Your task to perform on an android device: turn pop-ups off in chrome Image 0: 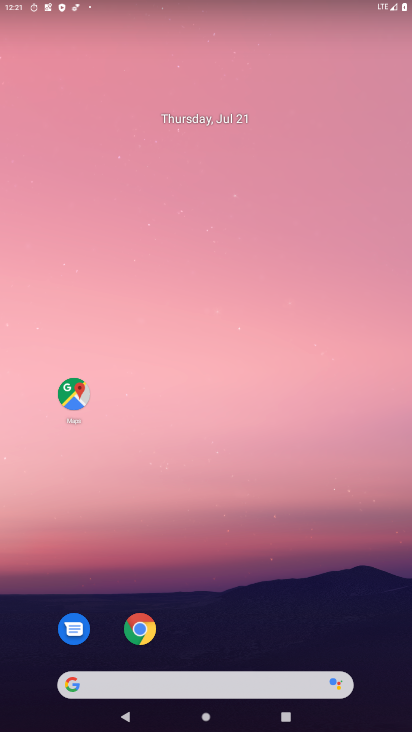
Step 0: drag from (161, 675) to (245, 10)
Your task to perform on an android device: turn pop-ups off in chrome Image 1: 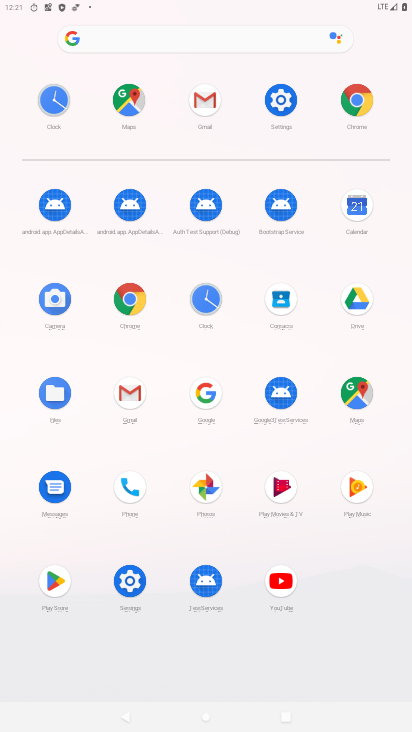
Step 1: click (122, 289)
Your task to perform on an android device: turn pop-ups off in chrome Image 2: 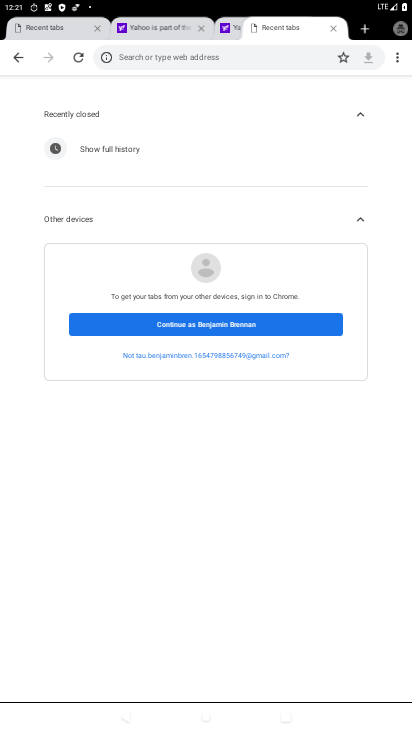
Step 2: drag from (393, 56) to (285, 262)
Your task to perform on an android device: turn pop-ups off in chrome Image 3: 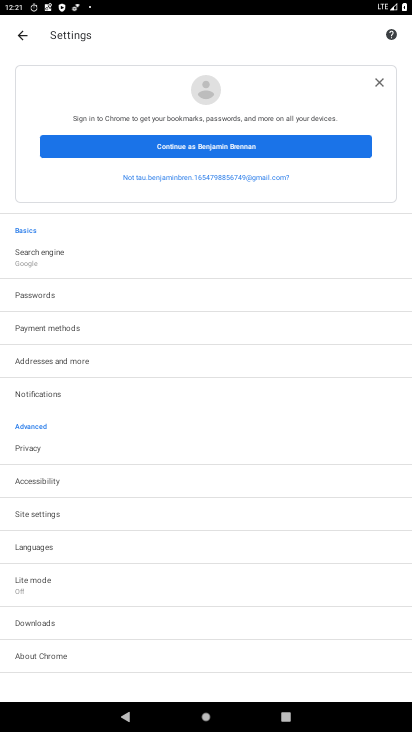
Step 3: click (36, 510)
Your task to perform on an android device: turn pop-ups off in chrome Image 4: 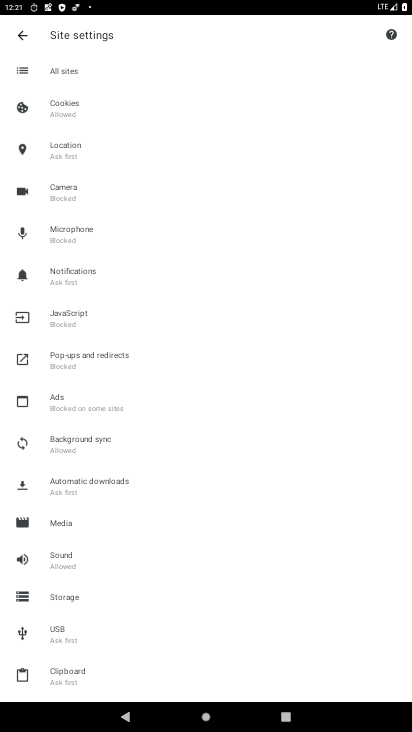
Step 4: click (110, 364)
Your task to perform on an android device: turn pop-ups off in chrome Image 5: 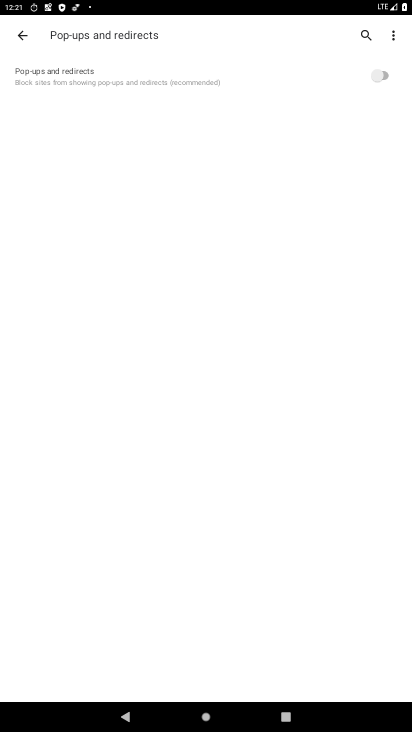
Step 5: task complete